Your task to perform on an android device: Open calendar and show me the third week of next month Image 0: 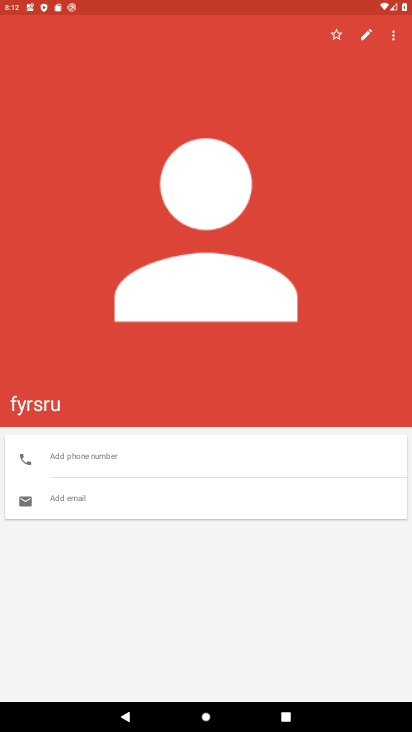
Step 0: press home button
Your task to perform on an android device: Open calendar and show me the third week of next month Image 1: 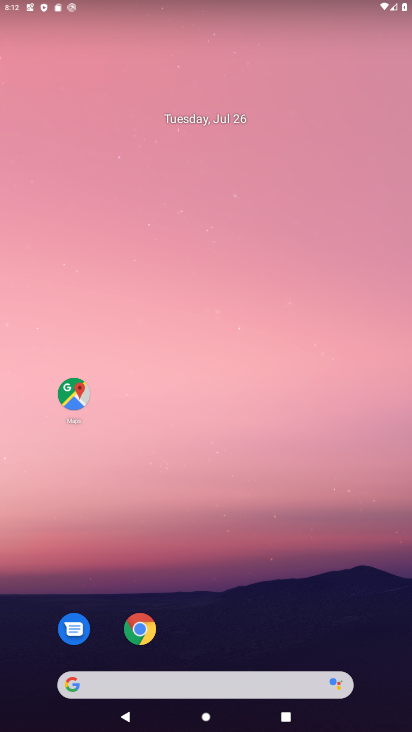
Step 1: drag from (200, 653) to (198, 59)
Your task to perform on an android device: Open calendar and show me the third week of next month Image 2: 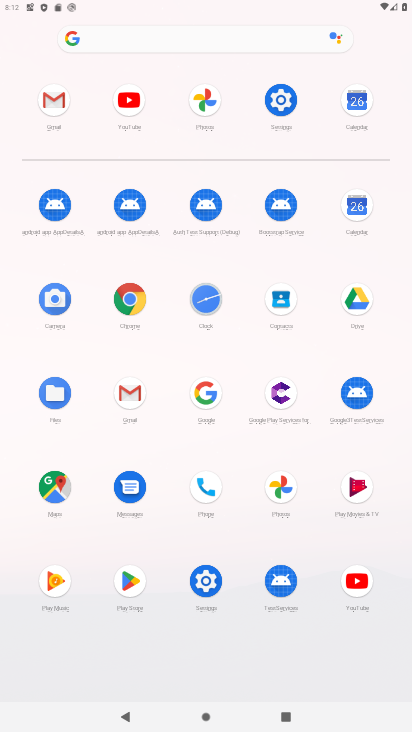
Step 2: click (353, 209)
Your task to perform on an android device: Open calendar and show me the third week of next month Image 3: 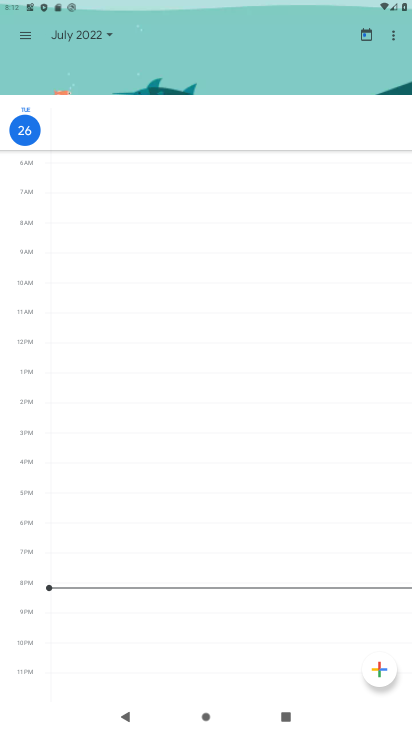
Step 3: click (107, 34)
Your task to perform on an android device: Open calendar and show me the third week of next month Image 4: 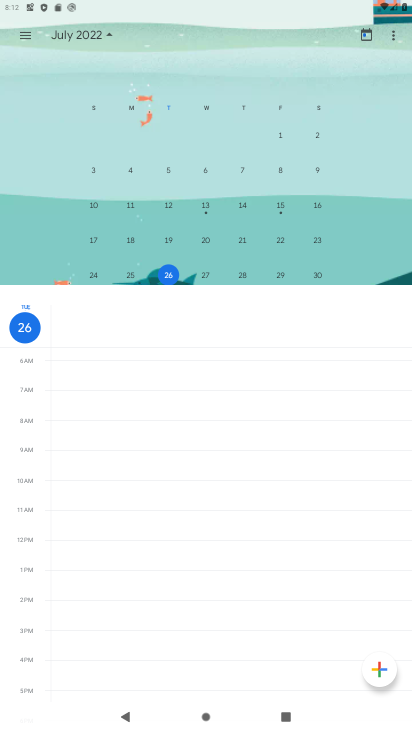
Step 4: drag from (312, 211) to (15, 199)
Your task to perform on an android device: Open calendar and show me the third week of next month Image 5: 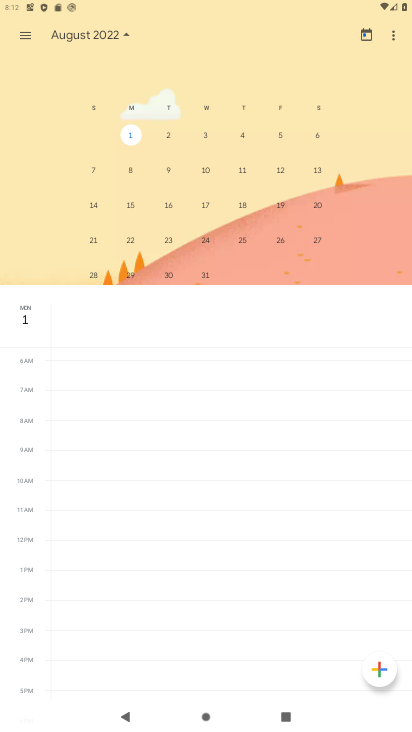
Step 5: click (86, 204)
Your task to perform on an android device: Open calendar and show me the third week of next month Image 6: 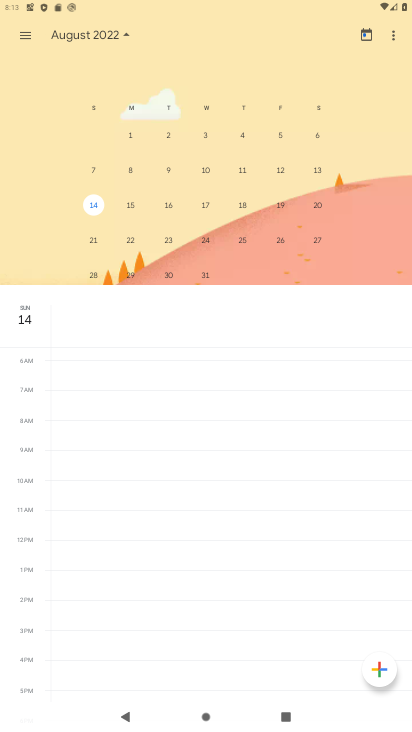
Step 6: click (29, 32)
Your task to perform on an android device: Open calendar and show me the third week of next month Image 7: 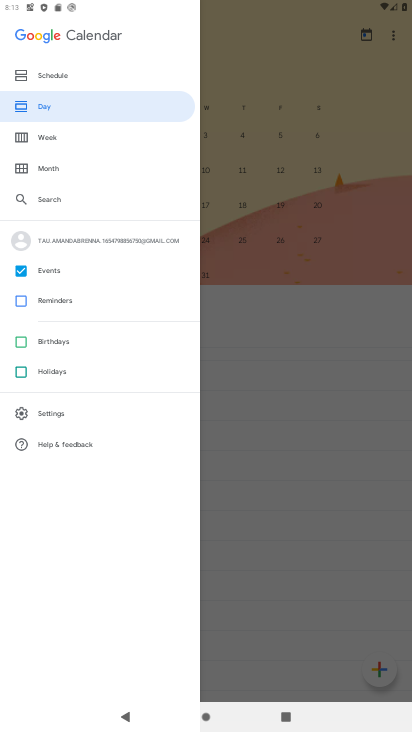
Step 7: click (39, 134)
Your task to perform on an android device: Open calendar and show me the third week of next month Image 8: 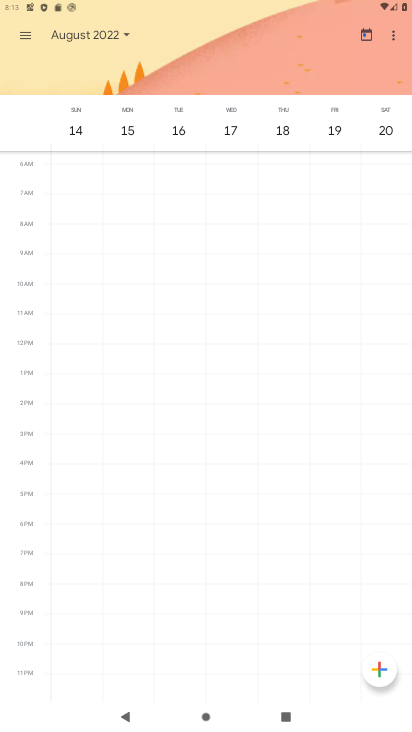
Step 8: task complete